Your task to perform on an android device: turn notification dots off Image 0: 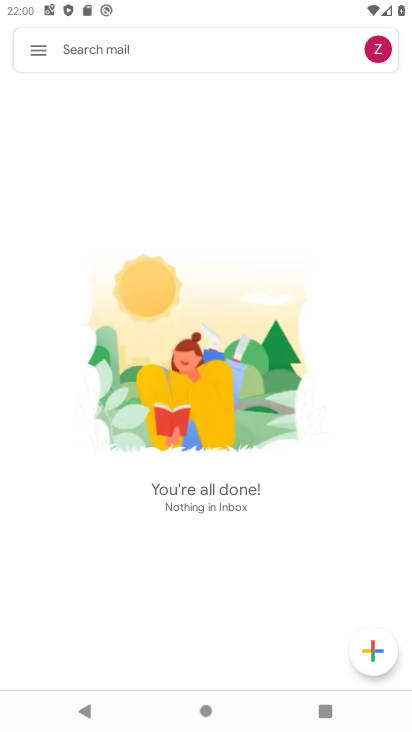
Step 0: press home button
Your task to perform on an android device: turn notification dots off Image 1: 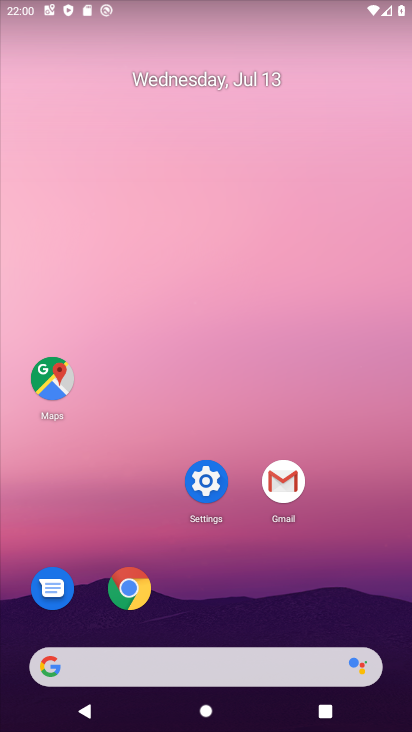
Step 1: click (205, 476)
Your task to perform on an android device: turn notification dots off Image 2: 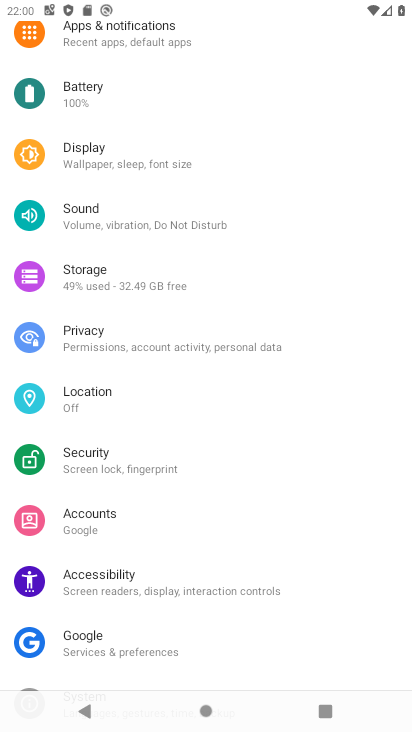
Step 2: click (117, 35)
Your task to perform on an android device: turn notification dots off Image 3: 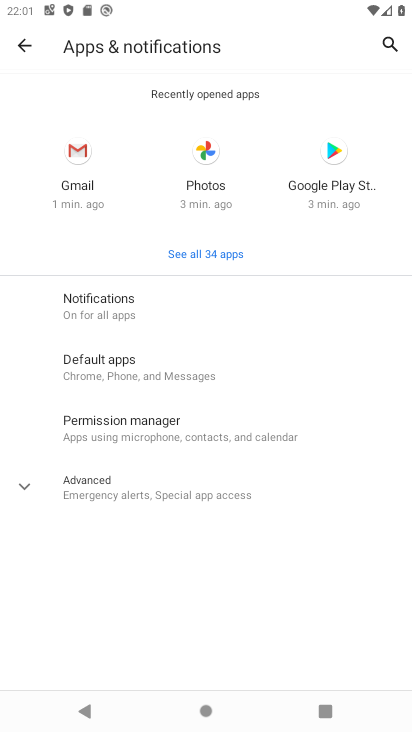
Step 3: click (96, 303)
Your task to perform on an android device: turn notification dots off Image 4: 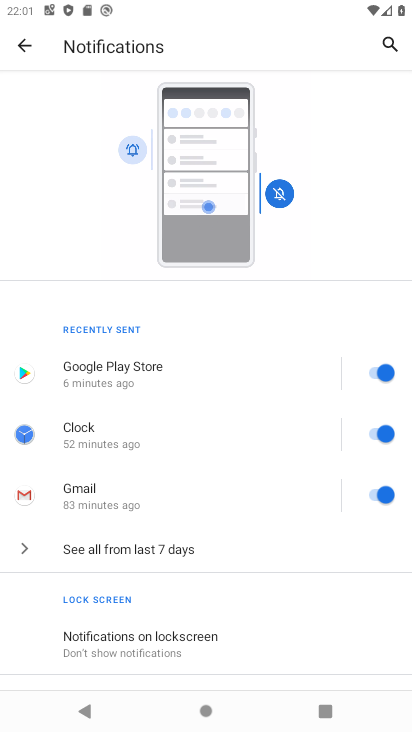
Step 4: drag from (328, 622) to (287, 170)
Your task to perform on an android device: turn notification dots off Image 5: 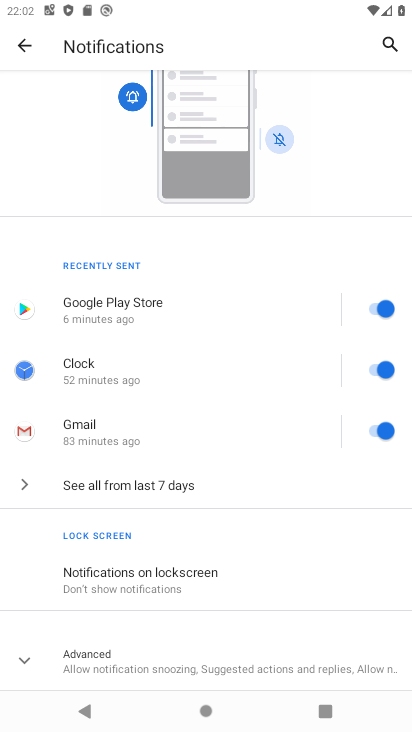
Step 5: click (41, 659)
Your task to perform on an android device: turn notification dots off Image 6: 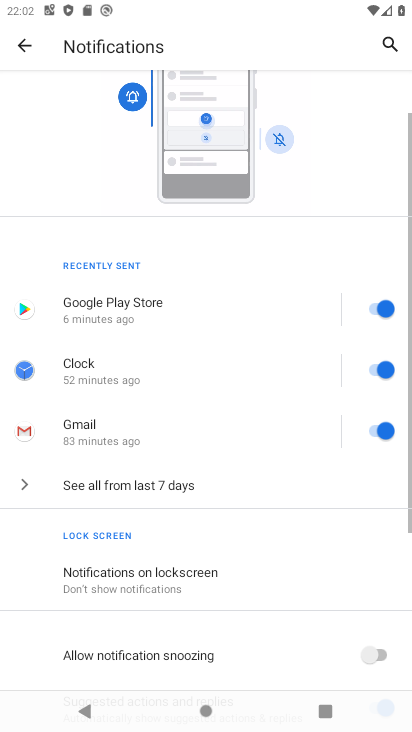
Step 6: drag from (287, 641) to (275, 244)
Your task to perform on an android device: turn notification dots off Image 7: 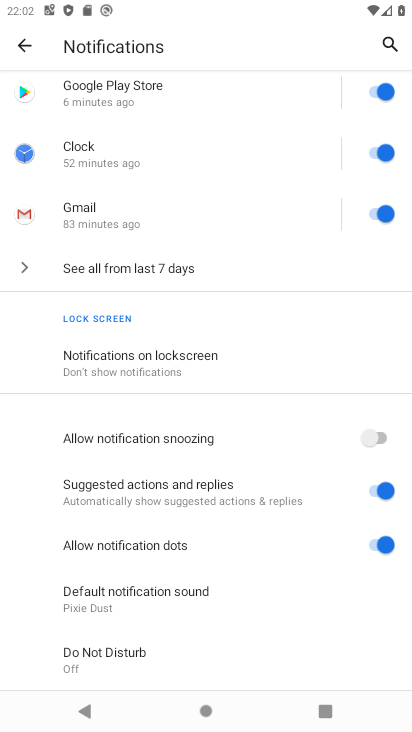
Step 7: click (368, 547)
Your task to perform on an android device: turn notification dots off Image 8: 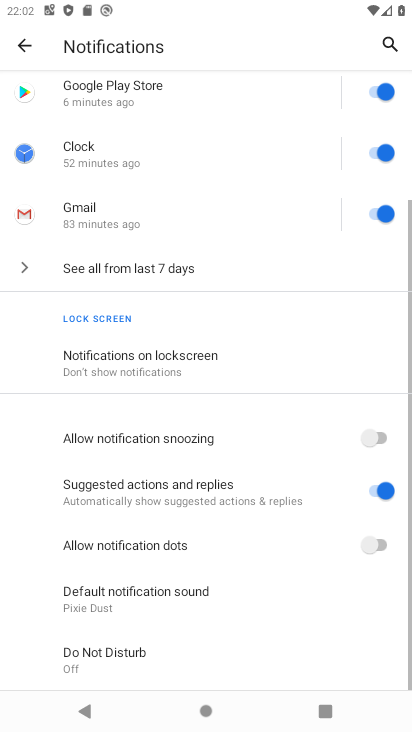
Step 8: task complete